Your task to perform on an android device: show emergency info Image 0: 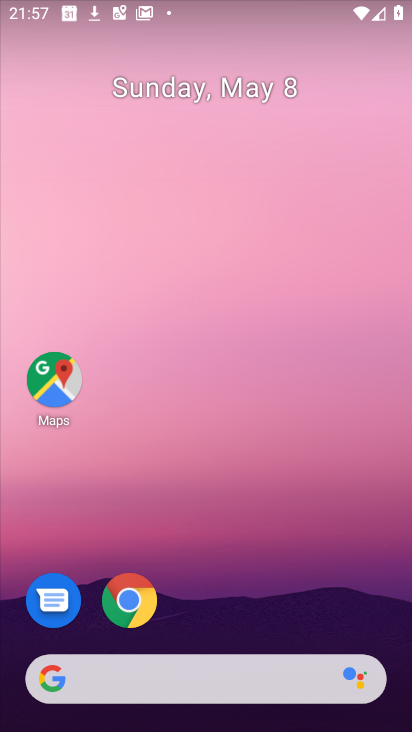
Step 0: drag from (244, 697) to (255, 150)
Your task to perform on an android device: show emergency info Image 1: 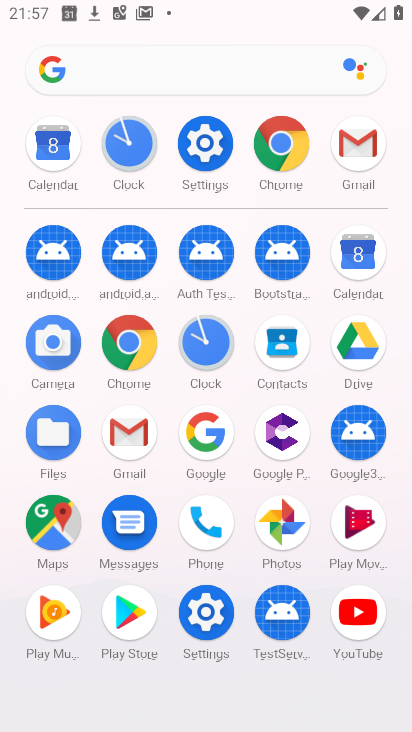
Step 1: click (211, 158)
Your task to perform on an android device: show emergency info Image 2: 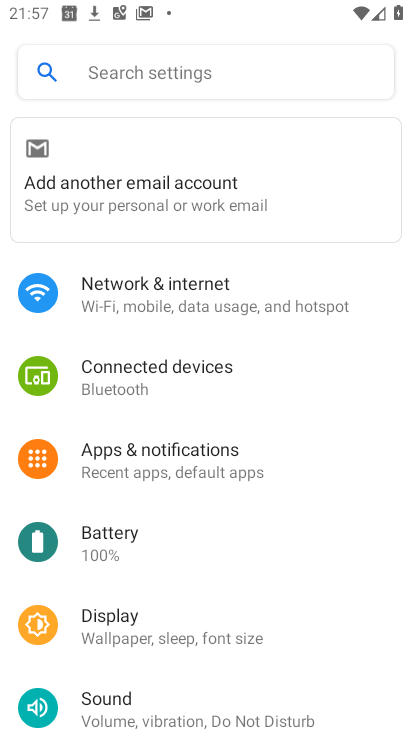
Step 2: click (113, 74)
Your task to perform on an android device: show emergency info Image 3: 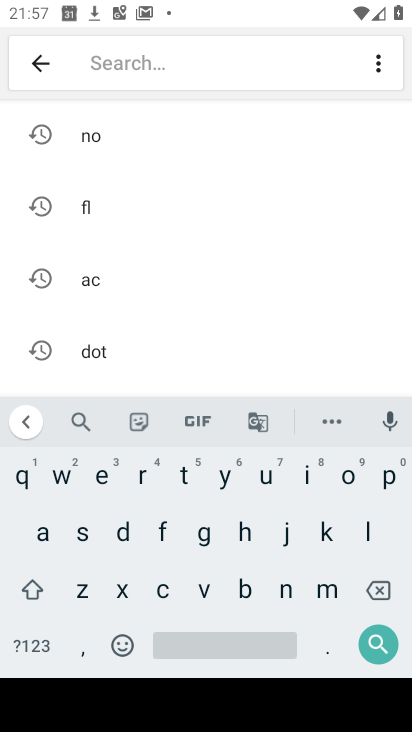
Step 3: click (93, 476)
Your task to perform on an android device: show emergency info Image 4: 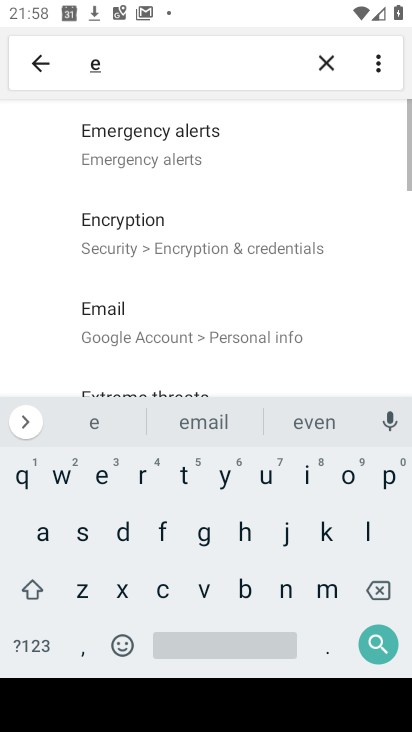
Step 4: click (327, 597)
Your task to perform on an android device: show emergency info Image 5: 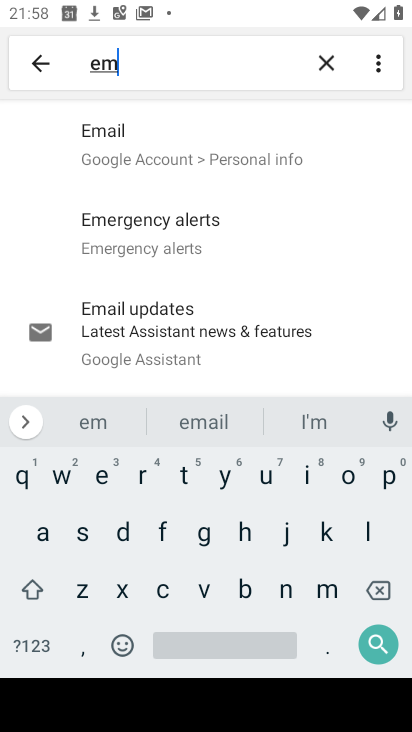
Step 5: click (95, 481)
Your task to perform on an android device: show emergency info Image 6: 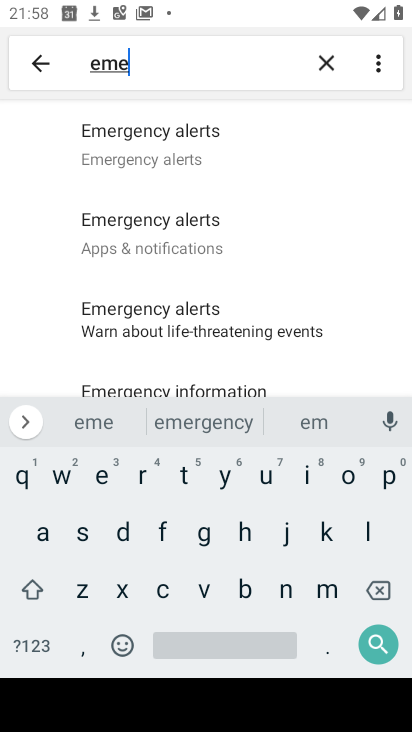
Step 6: press back button
Your task to perform on an android device: show emergency info Image 7: 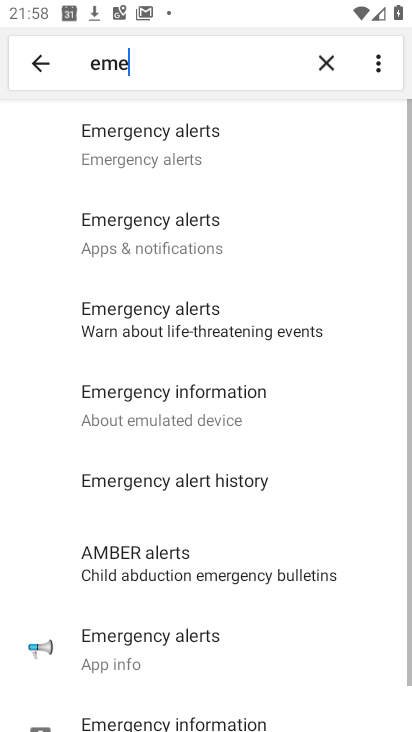
Step 7: click (205, 416)
Your task to perform on an android device: show emergency info Image 8: 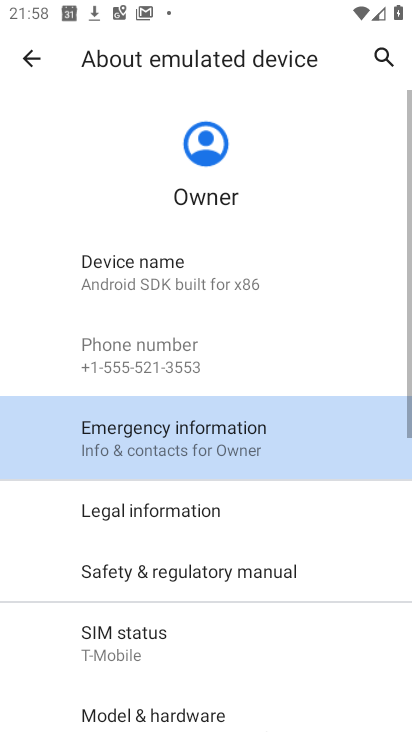
Step 8: click (200, 449)
Your task to perform on an android device: show emergency info Image 9: 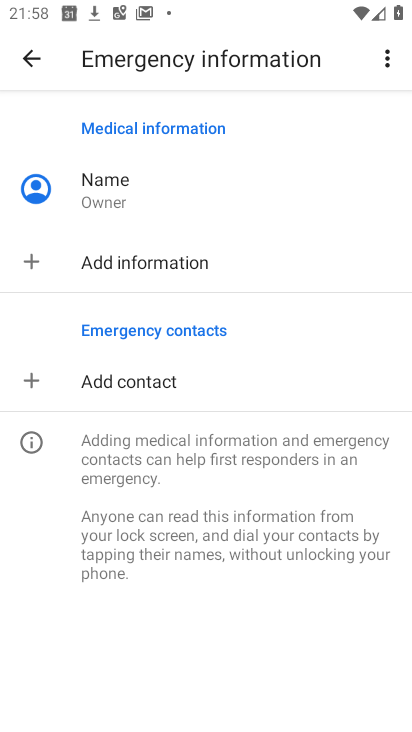
Step 9: task complete